Your task to perform on an android device: toggle airplane mode Image 0: 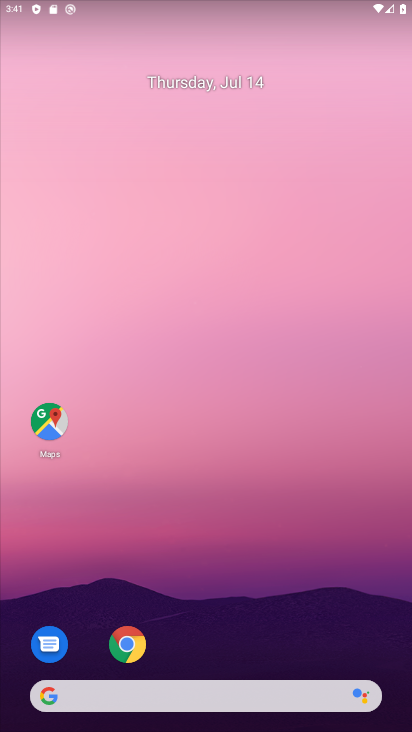
Step 0: drag from (326, 1) to (320, 265)
Your task to perform on an android device: toggle airplane mode Image 1: 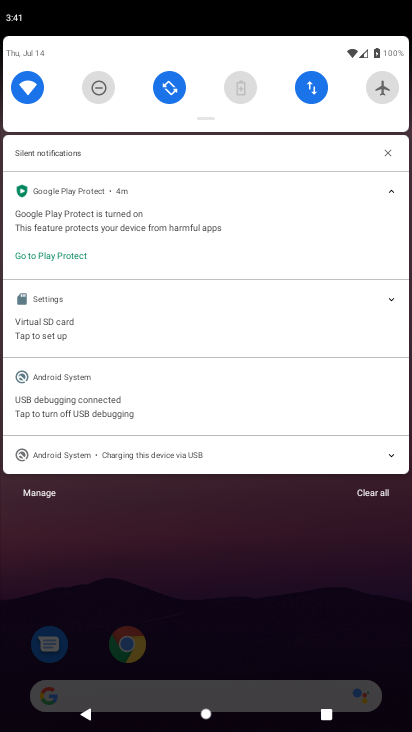
Step 1: click (386, 88)
Your task to perform on an android device: toggle airplane mode Image 2: 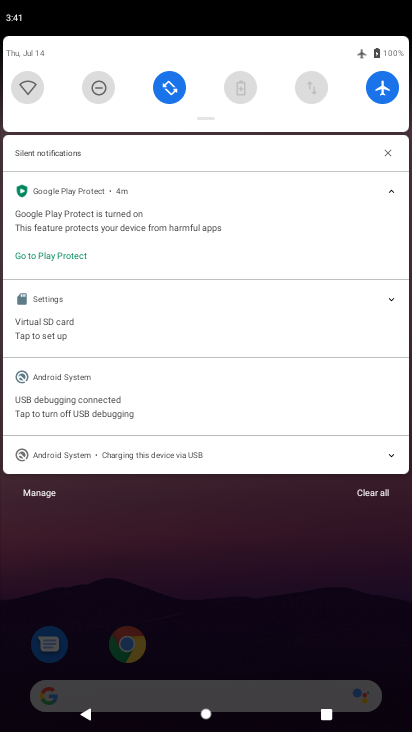
Step 2: task complete